Your task to perform on an android device: Open Google Chrome Image 0: 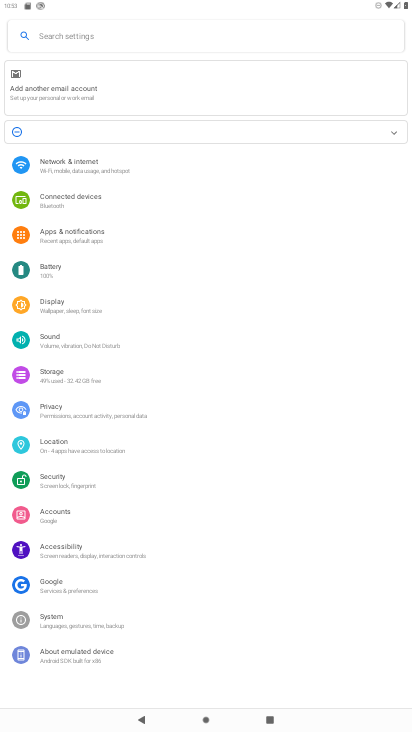
Step 0: press home button
Your task to perform on an android device: Open Google Chrome Image 1: 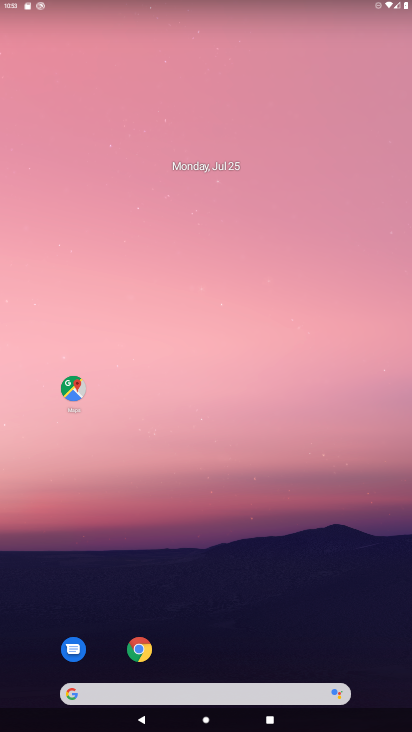
Step 1: click (138, 648)
Your task to perform on an android device: Open Google Chrome Image 2: 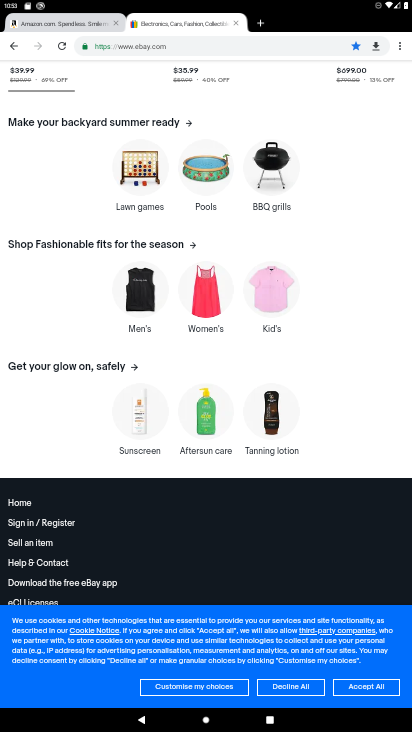
Step 2: task complete